Your task to perform on an android device: Open Youtube and go to "Your channel" Image 0: 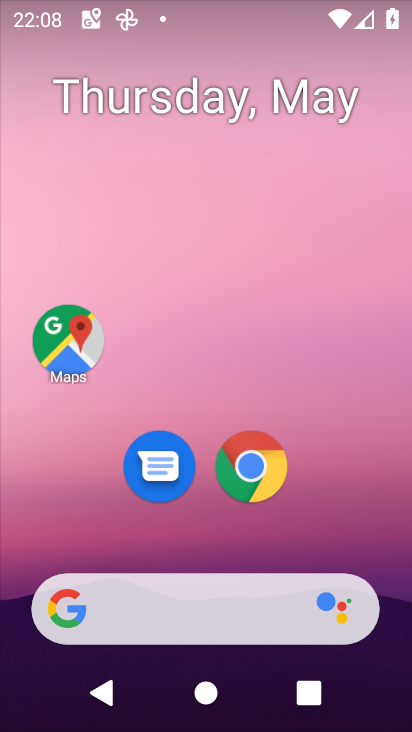
Step 0: drag from (370, 521) to (290, 0)
Your task to perform on an android device: Open Youtube and go to "Your channel" Image 1: 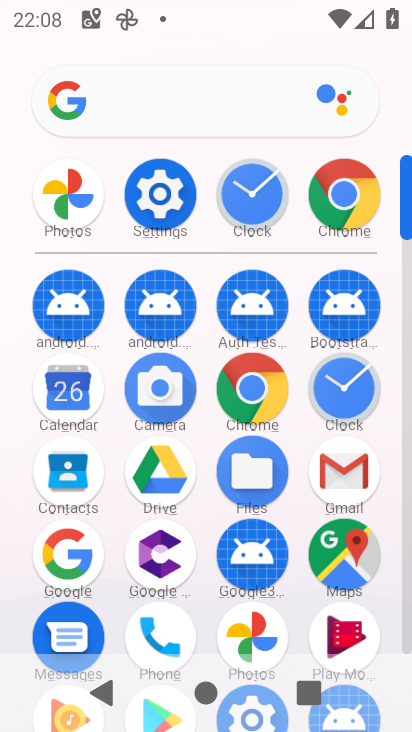
Step 1: click (408, 637)
Your task to perform on an android device: Open Youtube and go to "Your channel" Image 2: 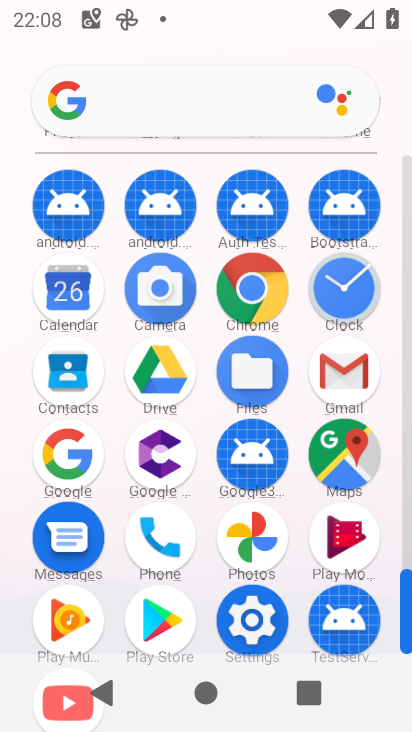
Step 2: click (405, 637)
Your task to perform on an android device: Open Youtube and go to "Your channel" Image 3: 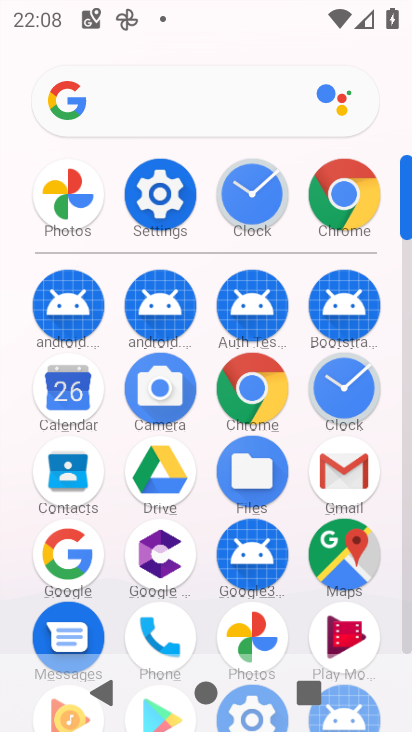
Step 3: click (403, 644)
Your task to perform on an android device: Open Youtube and go to "Your channel" Image 4: 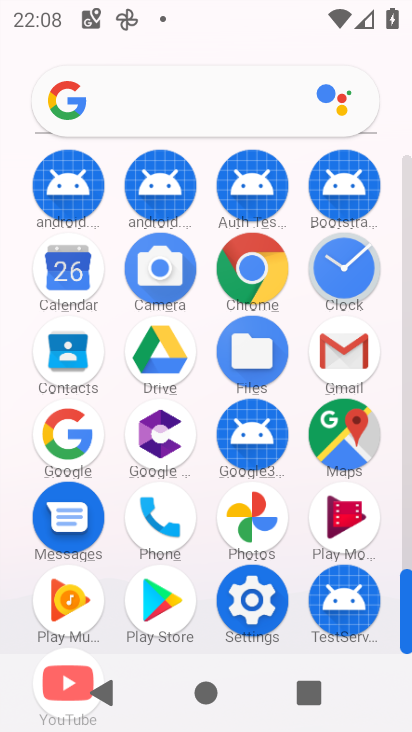
Step 4: drag from (403, 616) to (403, 726)
Your task to perform on an android device: Open Youtube and go to "Your channel" Image 5: 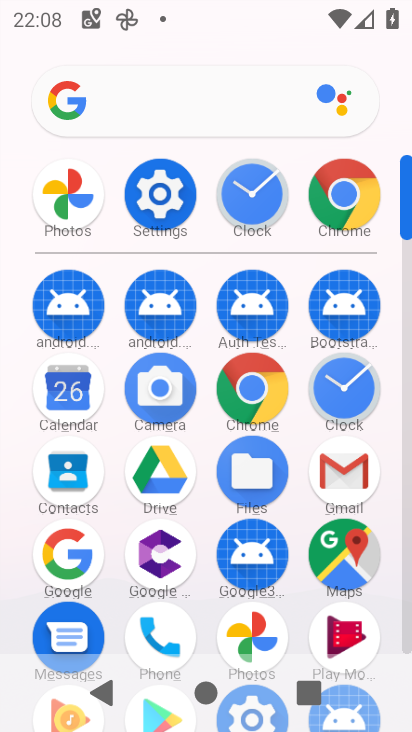
Step 5: click (403, 646)
Your task to perform on an android device: Open Youtube and go to "Your channel" Image 6: 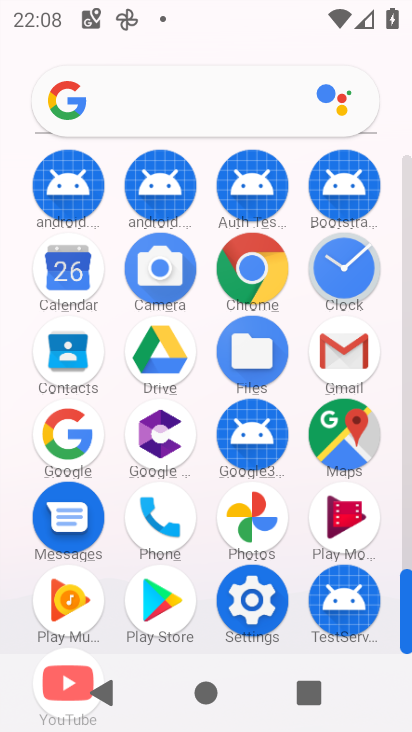
Step 6: click (403, 646)
Your task to perform on an android device: Open Youtube and go to "Your channel" Image 7: 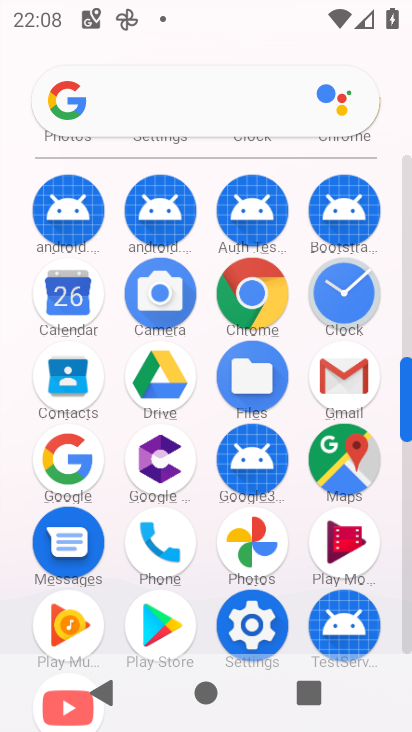
Step 7: click (404, 639)
Your task to perform on an android device: Open Youtube and go to "Your channel" Image 8: 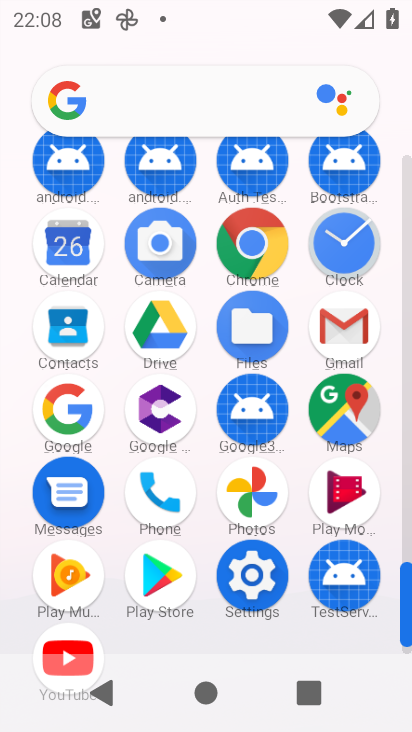
Step 8: click (89, 644)
Your task to perform on an android device: Open Youtube and go to "Your channel" Image 9: 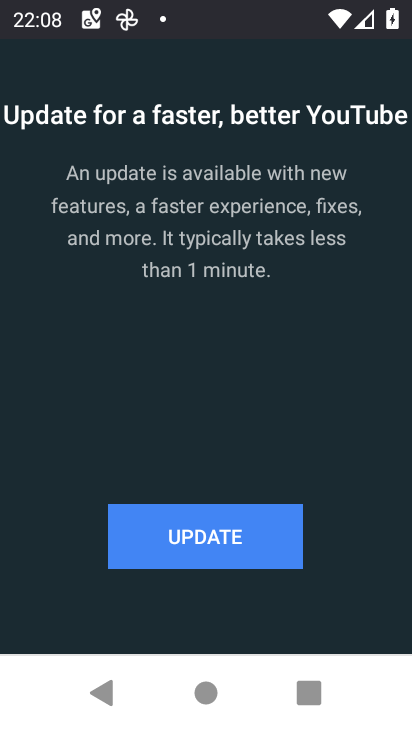
Step 9: click (231, 540)
Your task to perform on an android device: Open Youtube and go to "Your channel" Image 10: 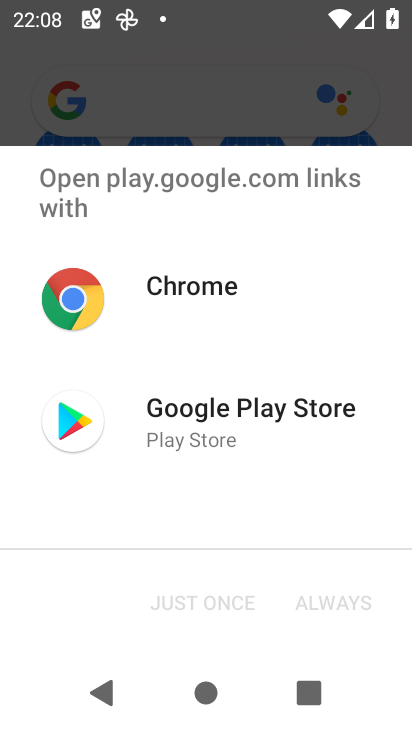
Step 10: click (172, 460)
Your task to perform on an android device: Open Youtube and go to "Your channel" Image 11: 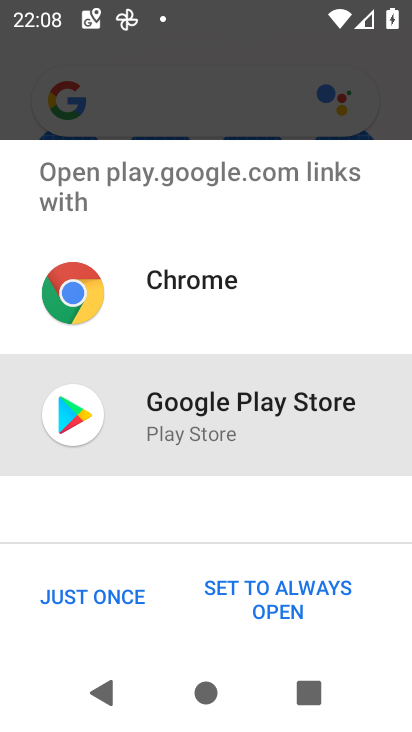
Step 11: click (95, 603)
Your task to perform on an android device: Open Youtube and go to "Your channel" Image 12: 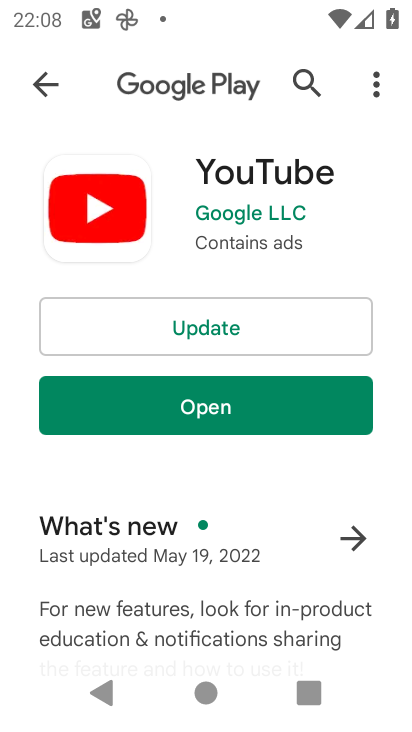
Step 12: click (238, 316)
Your task to perform on an android device: Open Youtube and go to "Your channel" Image 13: 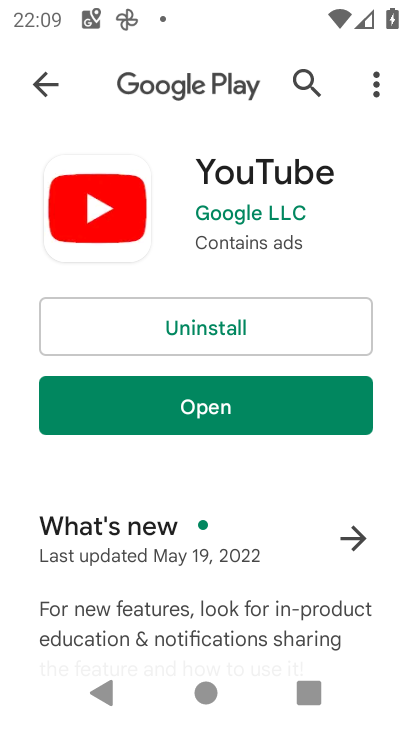
Step 13: click (218, 399)
Your task to perform on an android device: Open Youtube and go to "Your channel" Image 14: 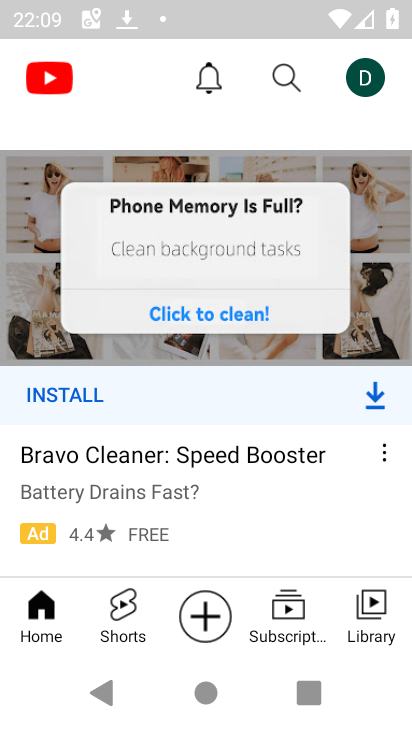
Step 14: click (348, 85)
Your task to perform on an android device: Open Youtube and go to "Your channel" Image 15: 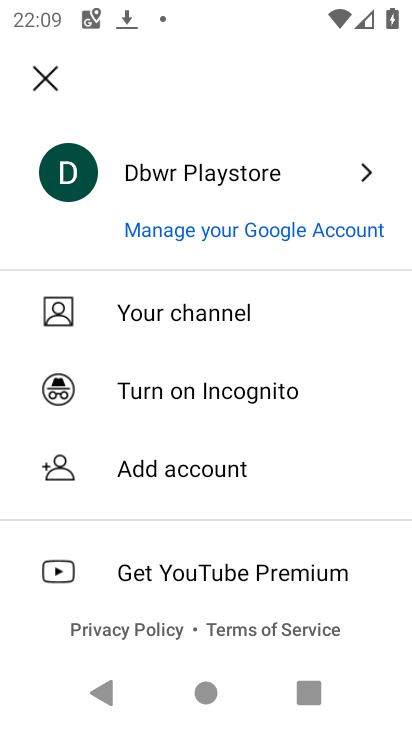
Step 15: click (228, 321)
Your task to perform on an android device: Open Youtube and go to "Your channel" Image 16: 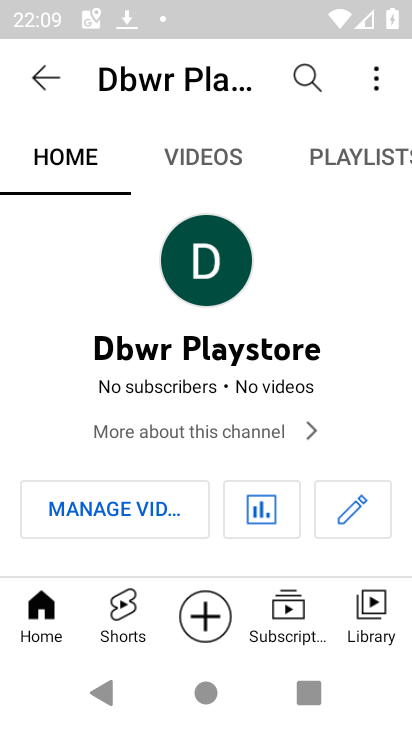
Step 16: task complete